Your task to perform on an android device: Open CNN.com Image 0: 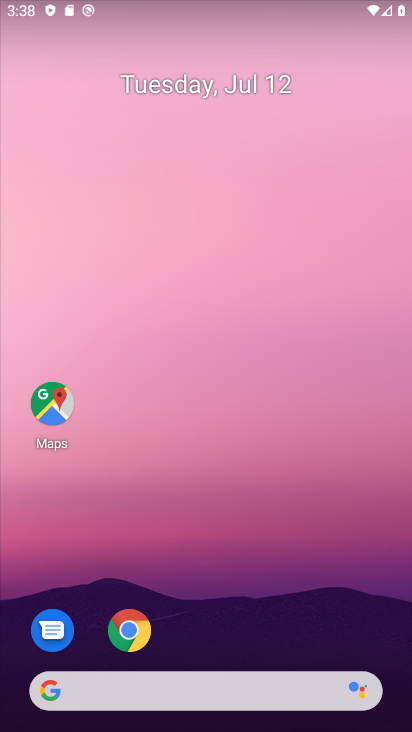
Step 0: click (136, 630)
Your task to perform on an android device: Open CNN.com Image 1: 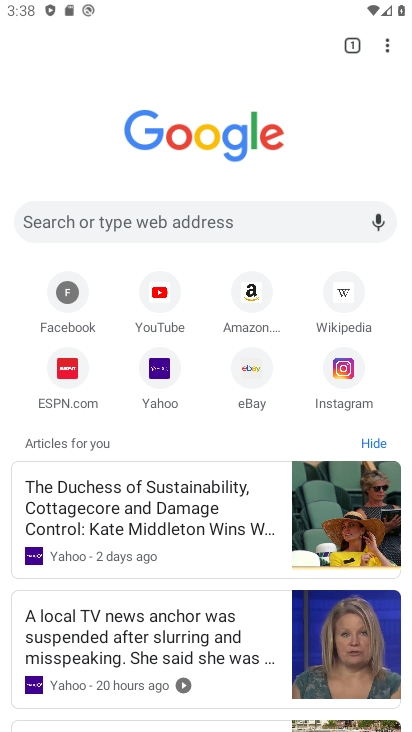
Step 1: click (251, 222)
Your task to perform on an android device: Open CNN.com Image 2: 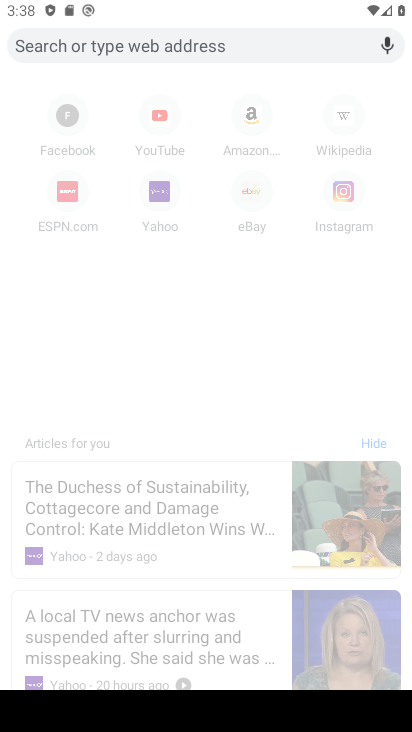
Step 2: type "CNN.com"
Your task to perform on an android device: Open CNN.com Image 3: 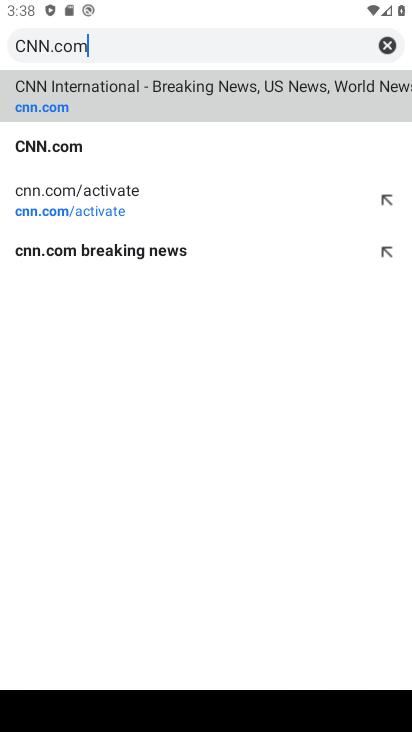
Step 3: click (181, 95)
Your task to perform on an android device: Open CNN.com Image 4: 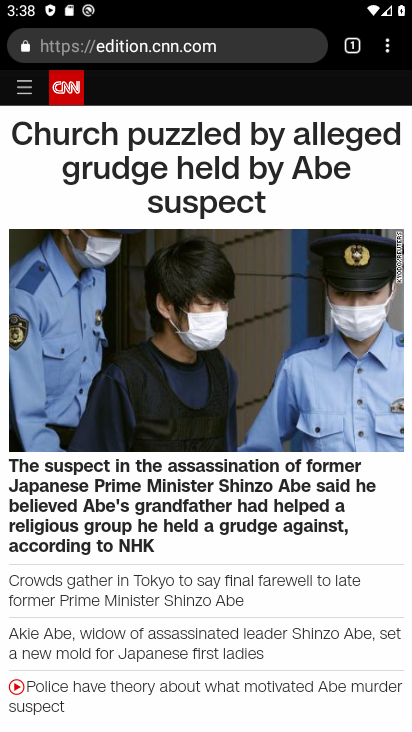
Step 4: task complete